Your task to perform on an android device: turn vacation reply on in the gmail app Image 0: 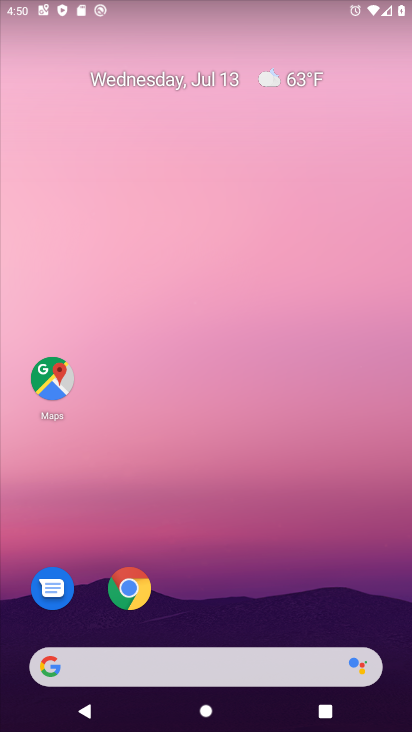
Step 0: drag from (179, 660) to (203, 150)
Your task to perform on an android device: turn vacation reply on in the gmail app Image 1: 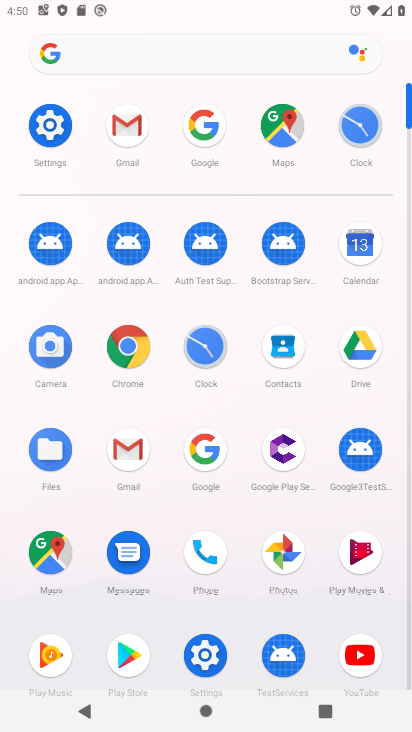
Step 1: click (127, 128)
Your task to perform on an android device: turn vacation reply on in the gmail app Image 2: 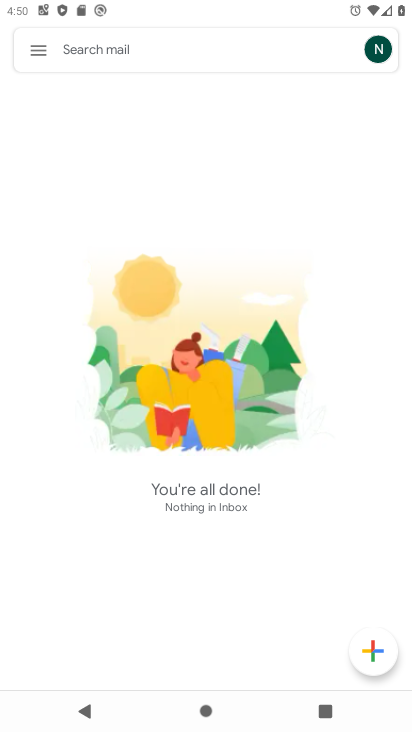
Step 2: click (39, 49)
Your task to perform on an android device: turn vacation reply on in the gmail app Image 3: 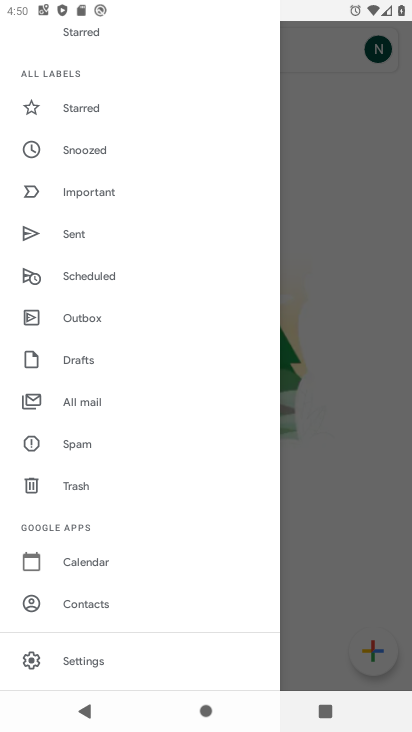
Step 3: click (81, 655)
Your task to perform on an android device: turn vacation reply on in the gmail app Image 4: 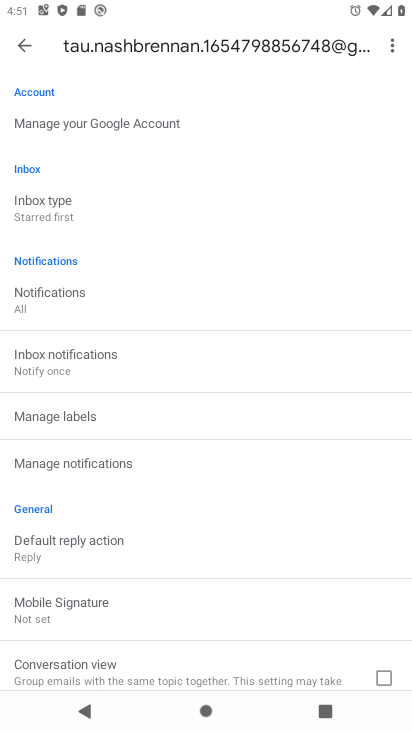
Step 4: drag from (186, 605) to (205, 515)
Your task to perform on an android device: turn vacation reply on in the gmail app Image 5: 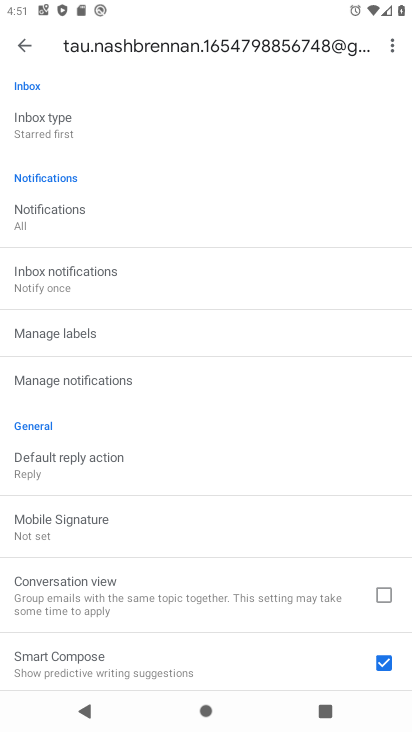
Step 5: drag from (115, 617) to (196, 507)
Your task to perform on an android device: turn vacation reply on in the gmail app Image 6: 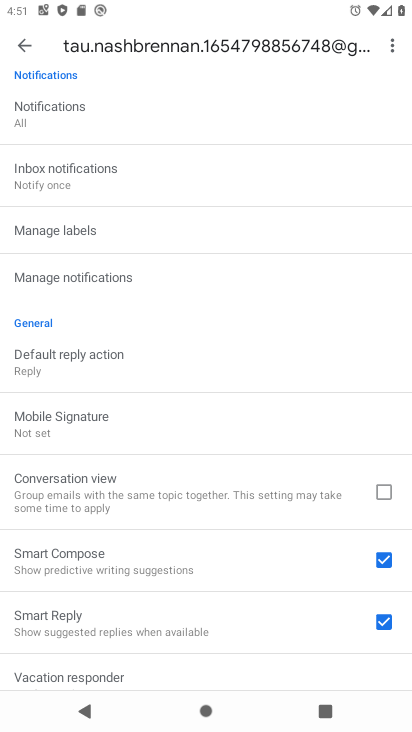
Step 6: drag from (157, 586) to (243, 460)
Your task to perform on an android device: turn vacation reply on in the gmail app Image 7: 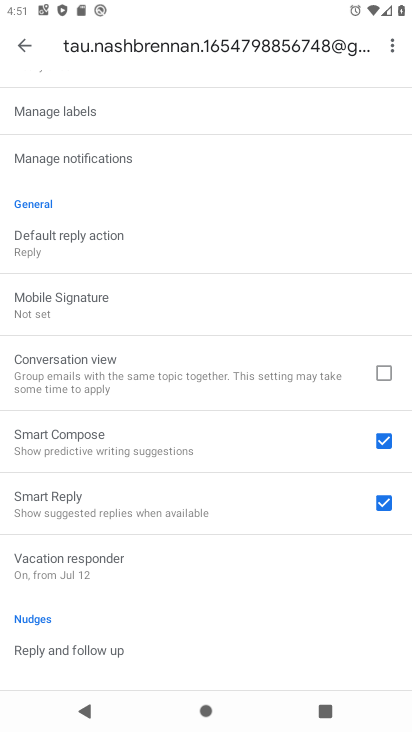
Step 7: click (134, 582)
Your task to perform on an android device: turn vacation reply on in the gmail app Image 8: 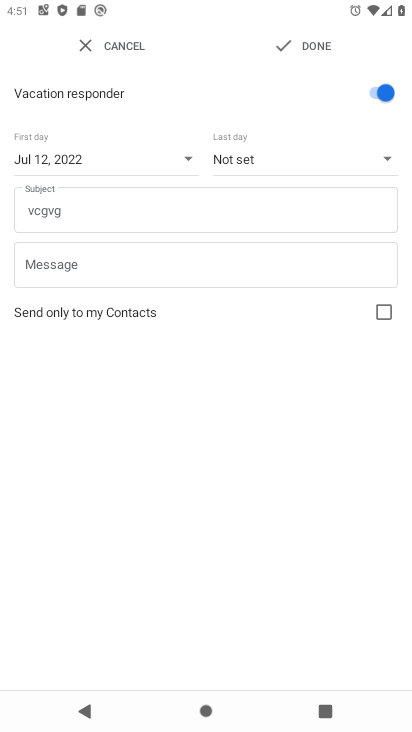
Step 8: task complete